Your task to perform on an android device: toggle data saver in the chrome app Image 0: 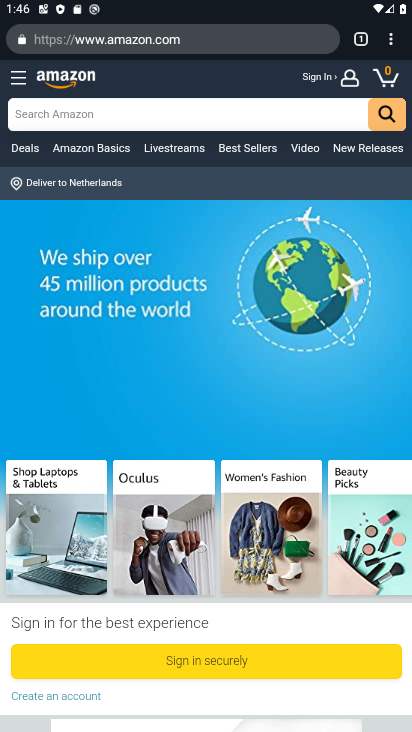
Step 0: click (386, 46)
Your task to perform on an android device: toggle data saver in the chrome app Image 1: 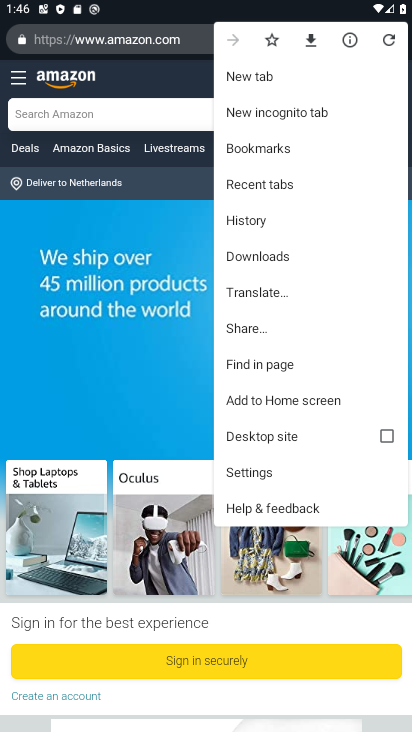
Step 1: click (240, 483)
Your task to perform on an android device: toggle data saver in the chrome app Image 2: 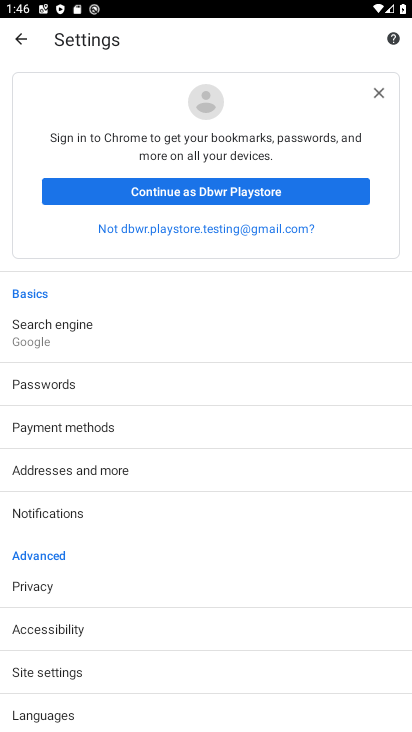
Step 2: drag from (113, 531) to (97, 129)
Your task to perform on an android device: toggle data saver in the chrome app Image 3: 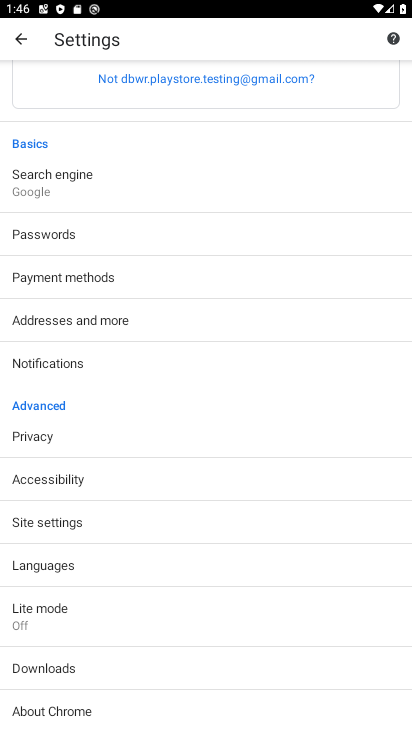
Step 3: click (75, 608)
Your task to perform on an android device: toggle data saver in the chrome app Image 4: 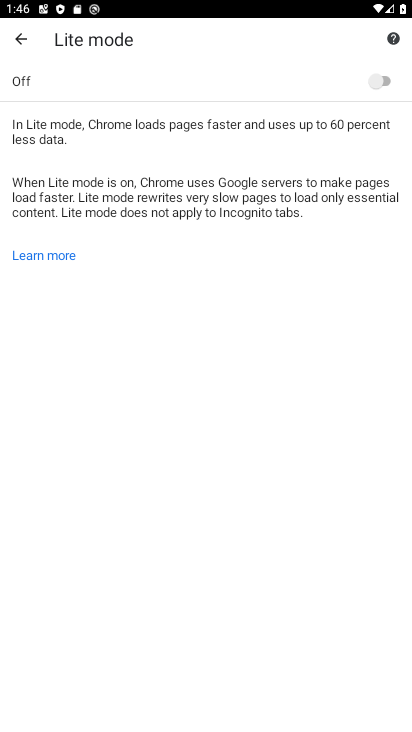
Step 4: click (383, 77)
Your task to perform on an android device: toggle data saver in the chrome app Image 5: 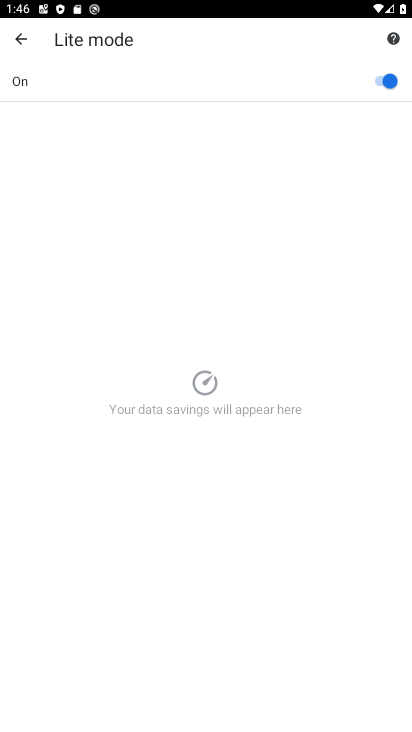
Step 5: task complete